Your task to perform on an android device: Open Chrome and go to settings Image 0: 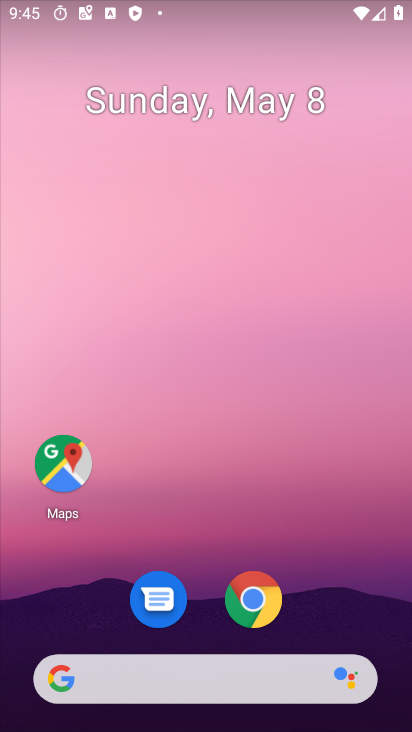
Step 0: drag from (241, 577) to (296, 70)
Your task to perform on an android device: Open Chrome and go to settings Image 1: 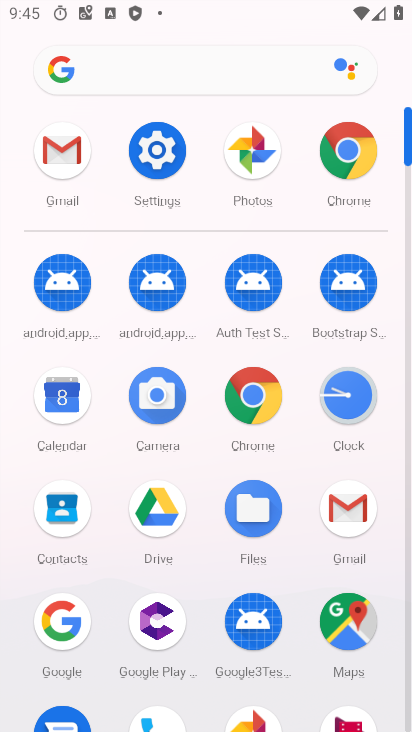
Step 1: click (150, 156)
Your task to perform on an android device: Open Chrome and go to settings Image 2: 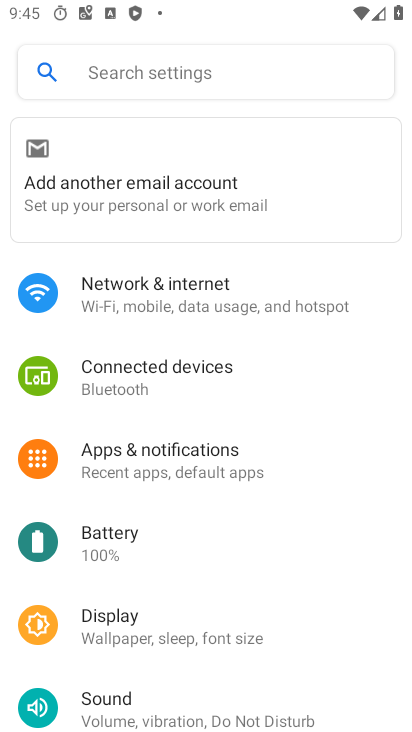
Step 2: press home button
Your task to perform on an android device: Open Chrome and go to settings Image 3: 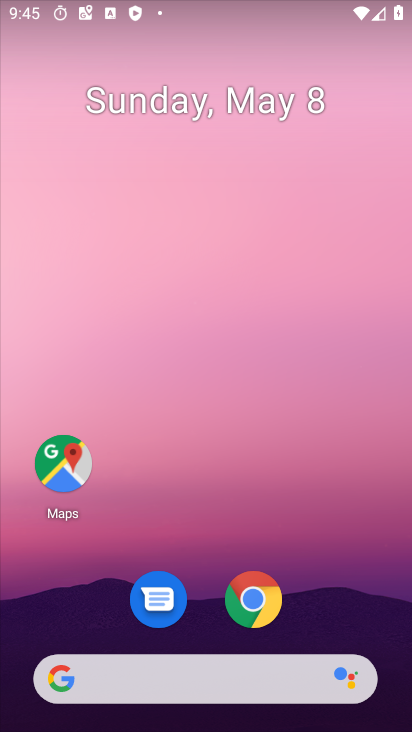
Step 3: click (269, 606)
Your task to perform on an android device: Open Chrome and go to settings Image 4: 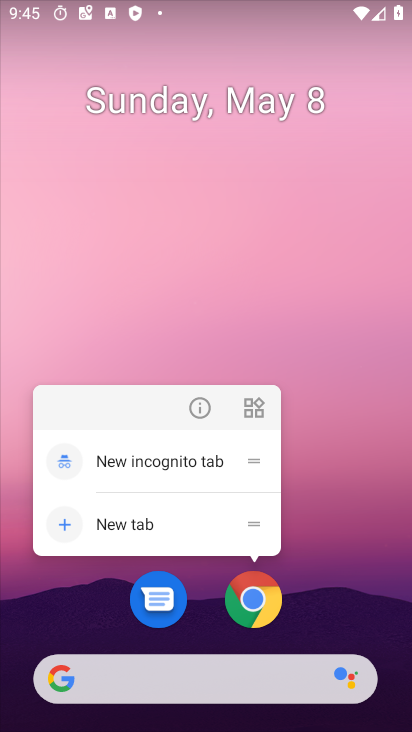
Step 4: click (269, 606)
Your task to perform on an android device: Open Chrome and go to settings Image 5: 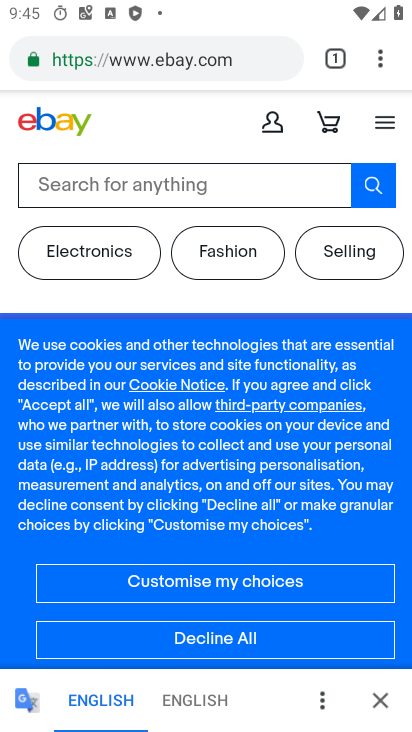
Step 5: click (383, 64)
Your task to perform on an android device: Open Chrome and go to settings Image 6: 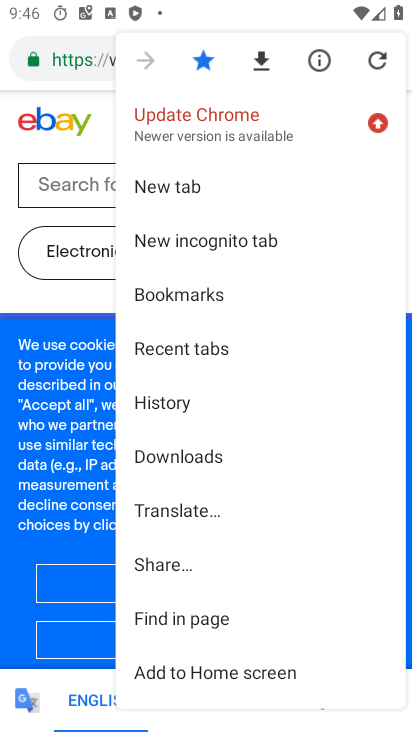
Step 6: drag from (320, 312) to (269, 155)
Your task to perform on an android device: Open Chrome and go to settings Image 7: 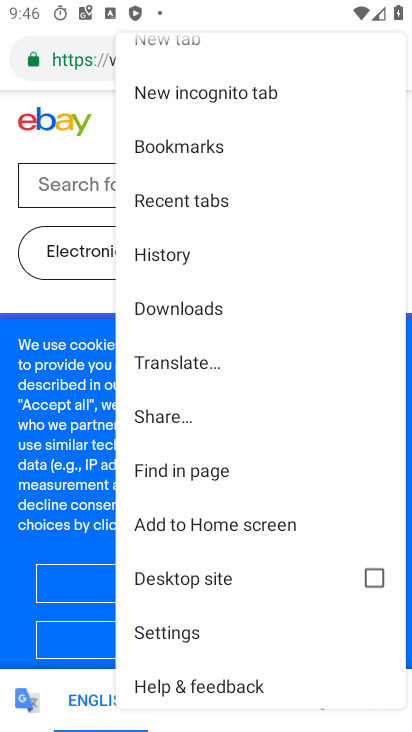
Step 7: click (253, 642)
Your task to perform on an android device: Open Chrome and go to settings Image 8: 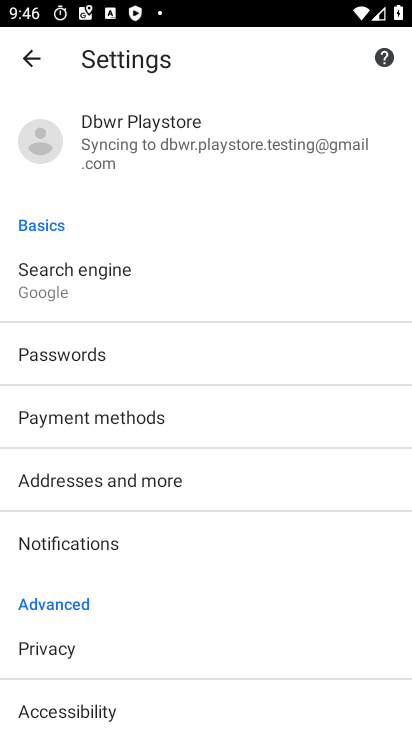
Step 8: task complete